Your task to perform on an android device: Open Reddit.com Image 0: 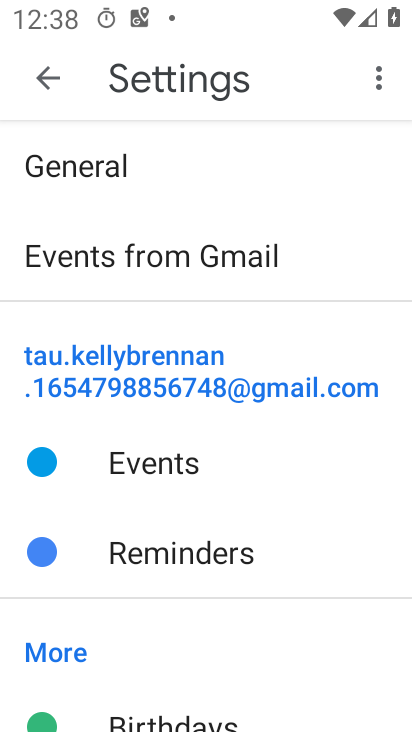
Step 0: press home button
Your task to perform on an android device: Open Reddit.com Image 1: 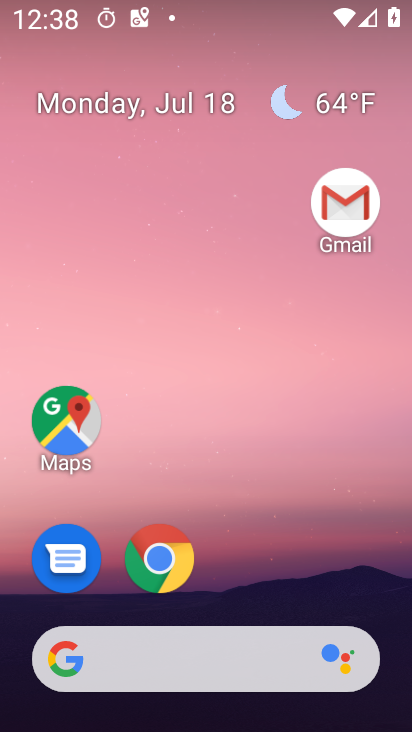
Step 1: drag from (371, 486) to (364, 69)
Your task to perform on an android device: Open Reddit.com Image 2: 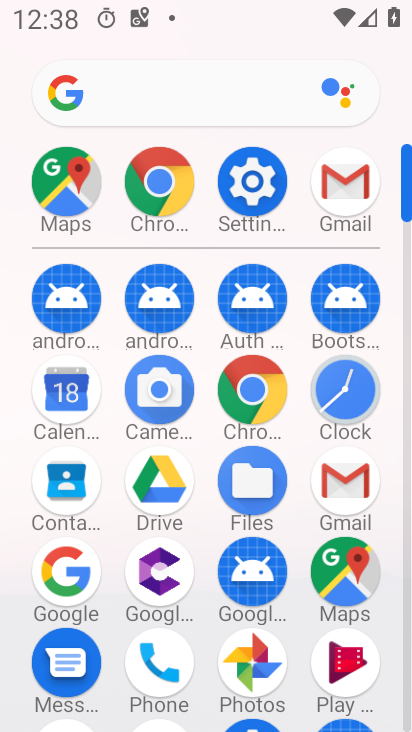
Step 2: click (258, 378)
Your task to perform on an android device: Open Reddit.com Image 3: 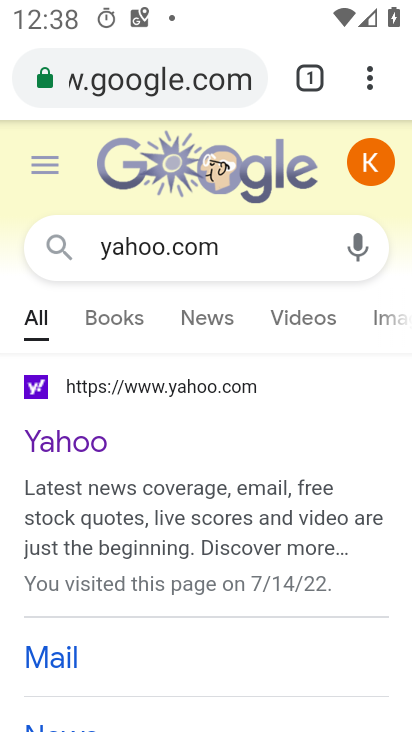
Step 3: click (169, 85)
Your task to perform on an android device: Open Reddit.com Image 4: 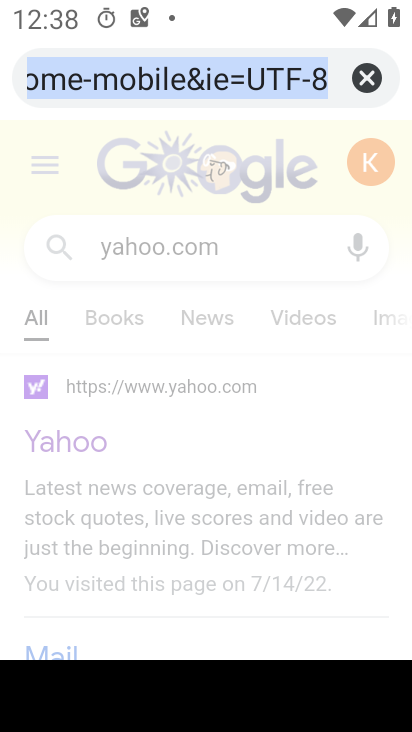
Step 4: type "reddit.com"
Your task to perform on an android device: Open Reddit.com Image 5: 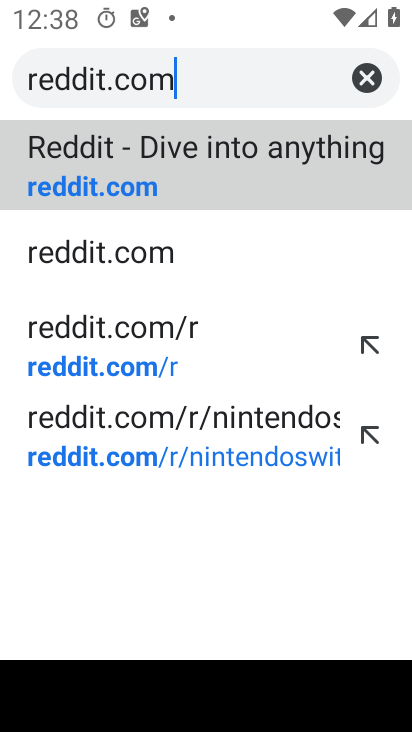
Step 5: click (298, 178)
Your task to perform on an android device: Open Reddit.com Image 6: 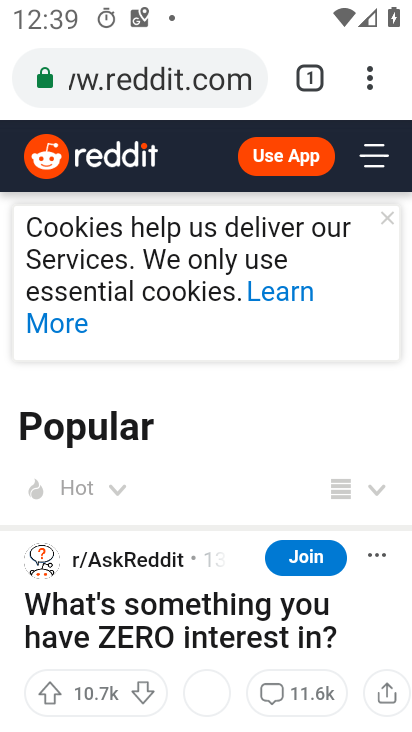
Step 6: task complete